Your task to perform on an android device: turn smart compose on in the gmail app Image 0: 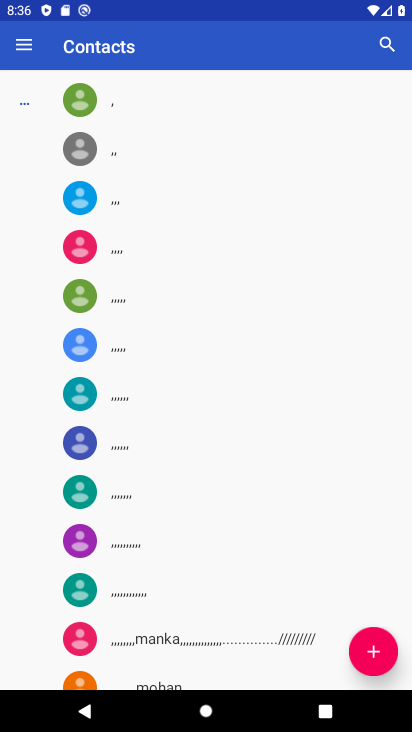
Step 0: press home button
Your task to perform on an android device: turn smart compose on in the gmail app Image 1: 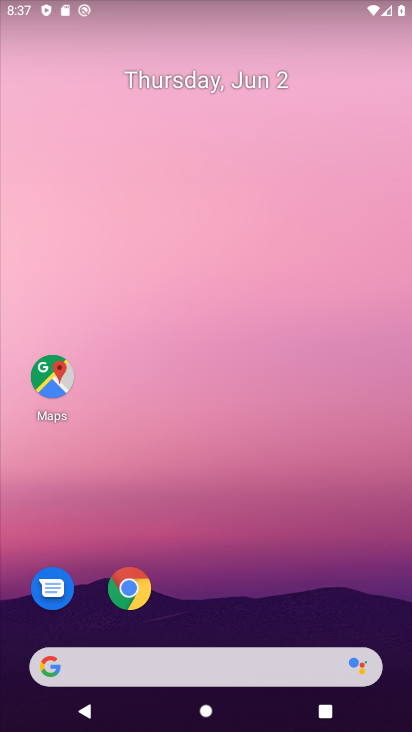
Step 1: drag from (301, 576) to (259, 99)
Your task to perform on an android device: turn smart compose on in the gmail app Image 2: 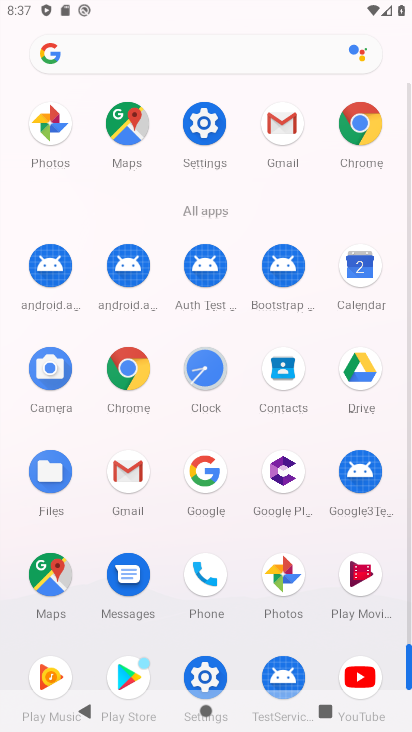
Step 2: click (274, 131)
Your task to perform on an android device: turn smart compose on in the gmail app Image 3: 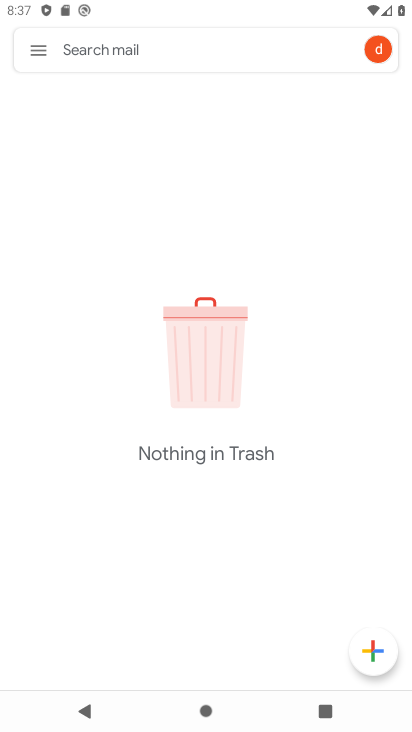
Step 3: click (42, 49)
Your task to perform on an android device: turn smart compose on in the gmail app Image 4: 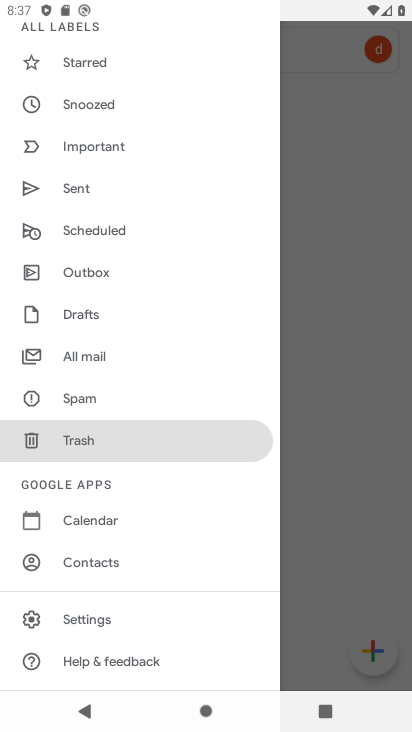
Step 4: click (134, 616)
Your task to perform on an android device: turn smart compose on in the gmail app Image 5: 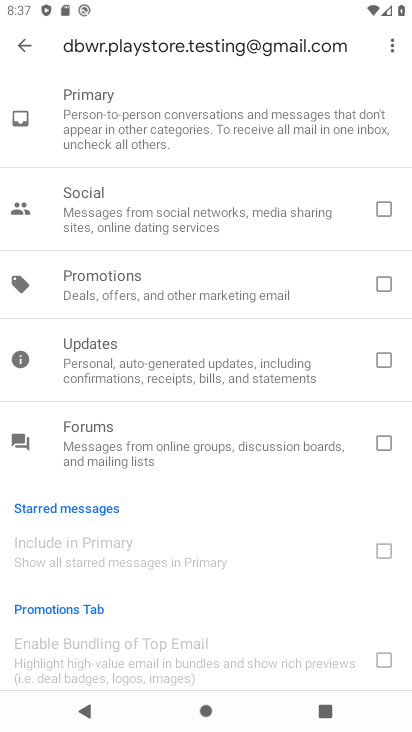
Step 5: drag from (133, 650) to (118, 132)
Your task to perform on an android device: turn smart compose on in the gmail app Image 6: 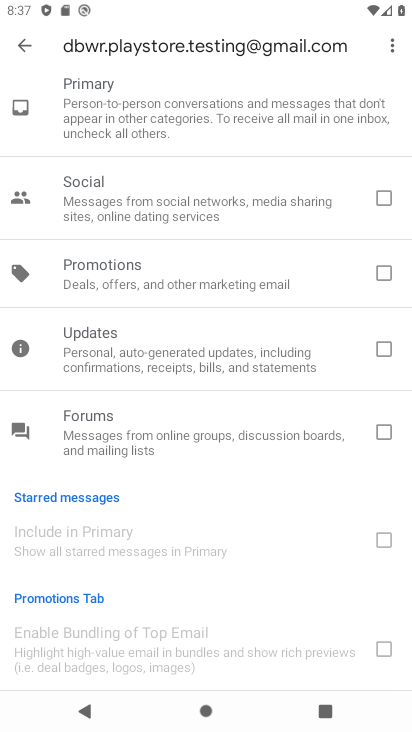
Step 6: click (19, 43)
Your task to perform on an android device: turn smart compose on in the gmail app Image 7: 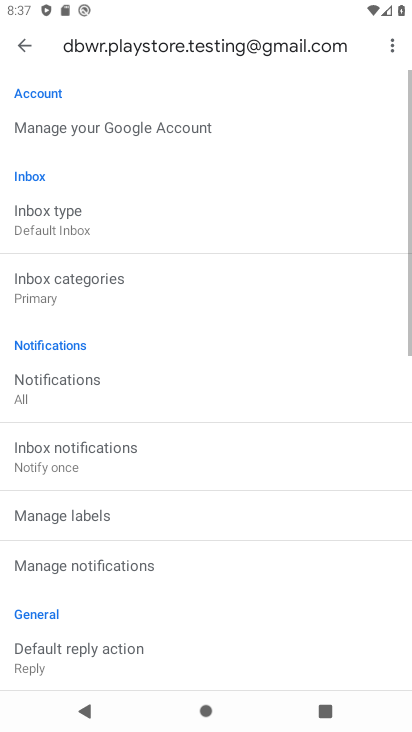
Step 7: task complete